Your task to perform on an android device: Open location settings Image 0: 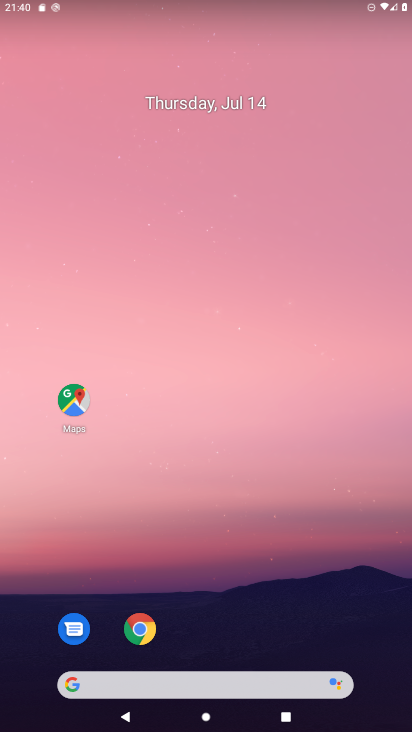
Step 0: drag from (269, 613) to (268, 253)
Your task to perform on an android device: Open location settings Image 1: 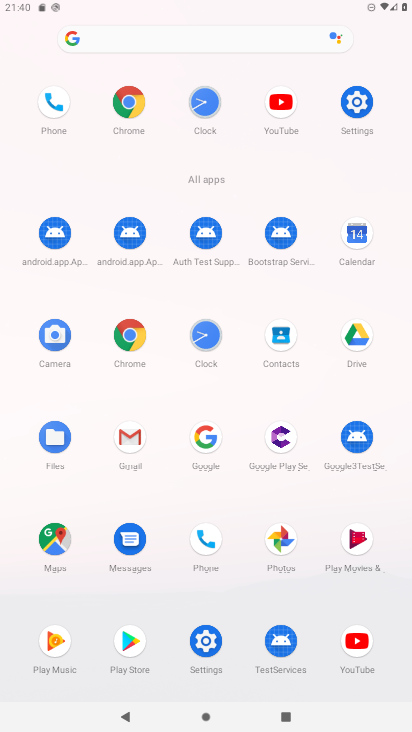
Step 1: click (349, 99)
Your task to perform on an android device: Open location settings Image 2: 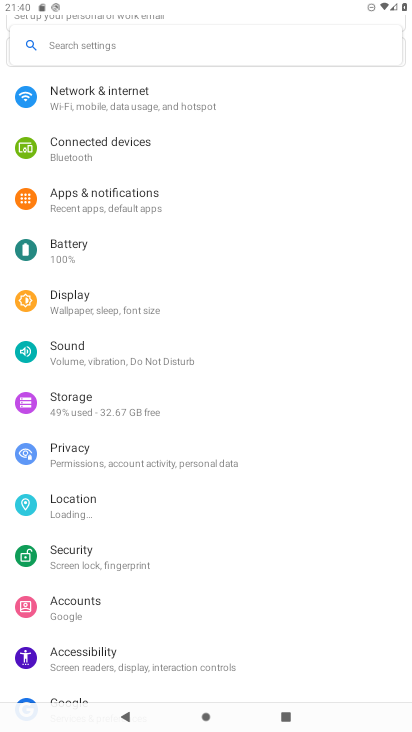
Step 2: click (121, 501)
Your task to perform on an android device: Open location settings Image 3: 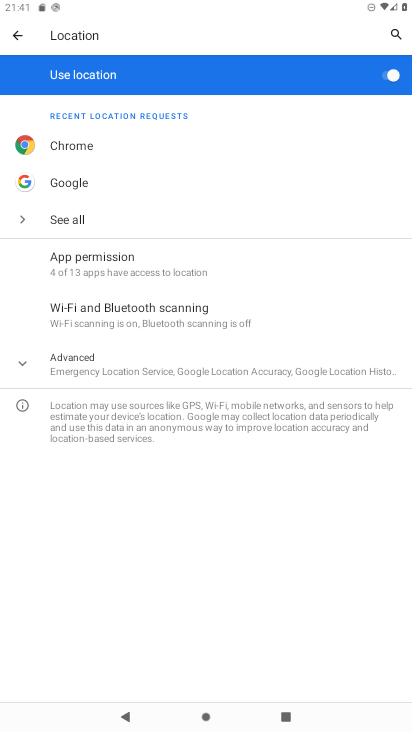
Step 3: task complete